Your task to perform on an android device: Find coffee shops on Maps Image 0: 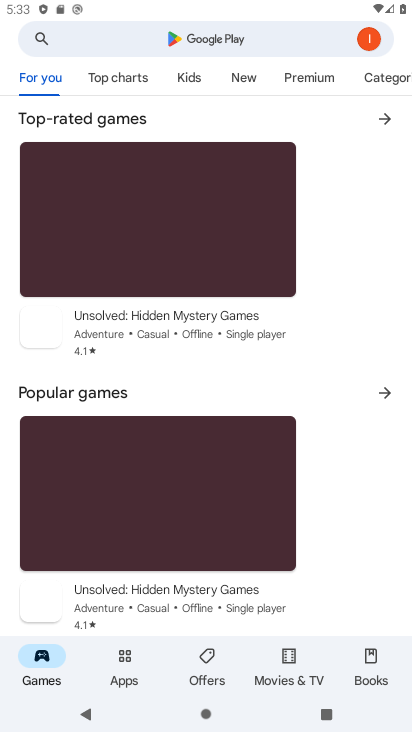
Step 0: press home button
Your task to perform on an android device: Find coffee shops on Maps Image 1: 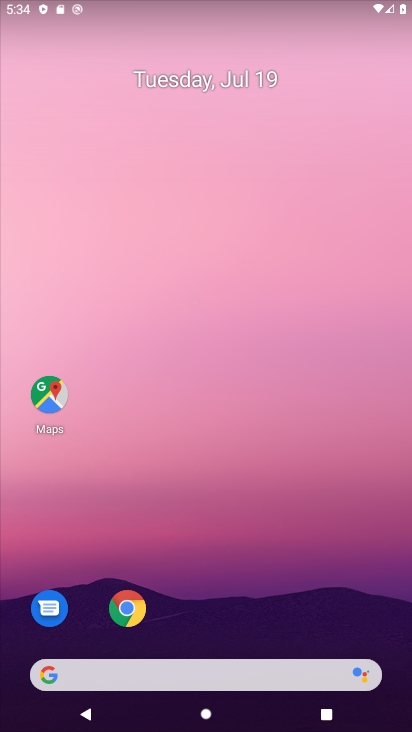
Step 1: drag from (257, 612) to (266, 13)
Your task to perform on an android device: Find coffee shops on Maps Image 2: 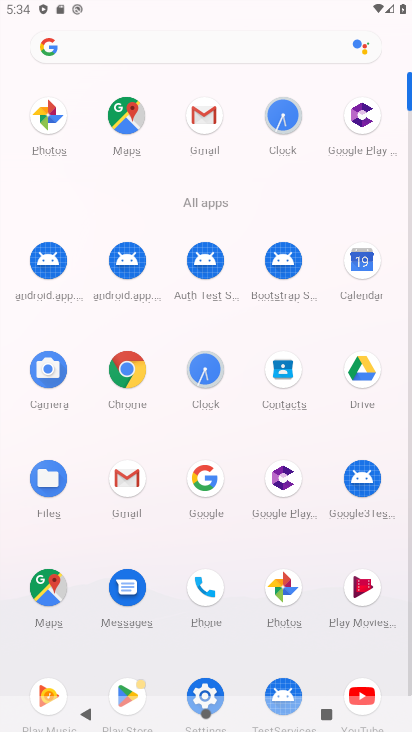
Step 2: click (62, 591)
Your task to perform on an android device: Find coffee shops on Maps Image 3: 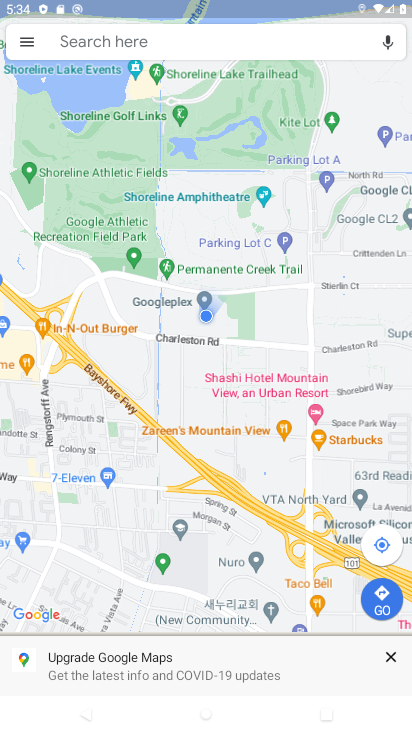
Step 3: click (108, 41)
Your task to perform on an android device: Find coffee shops on Maps Image 4: 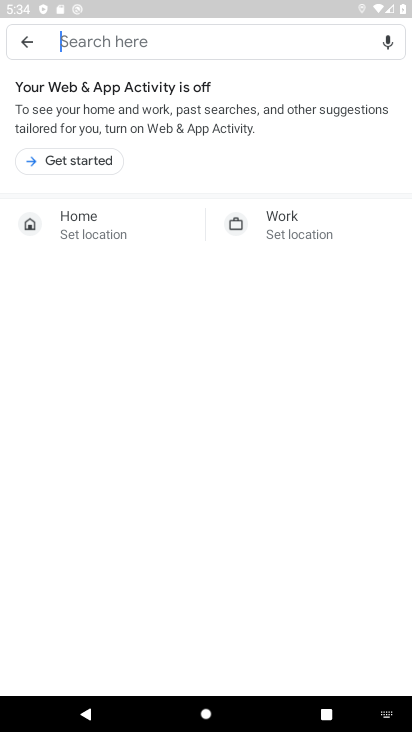
Step 4: type "coffee shops"
Your task to perform on an android device: Find coffee shops on Maps Image 5: 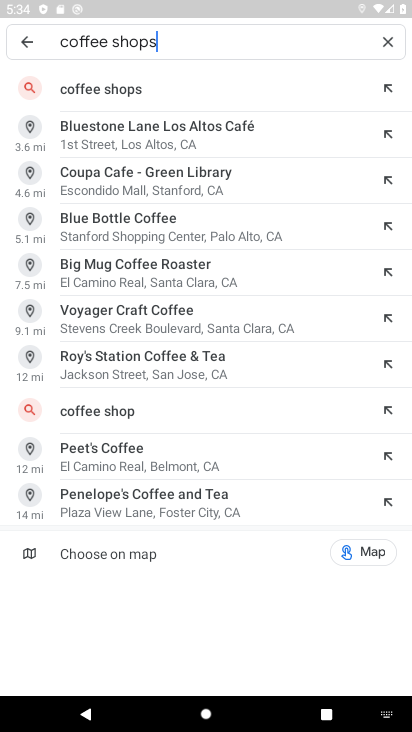
Step 5: click (117, 89)
Your task to perform on an android device: Find coffee shops on Maps Image 6: 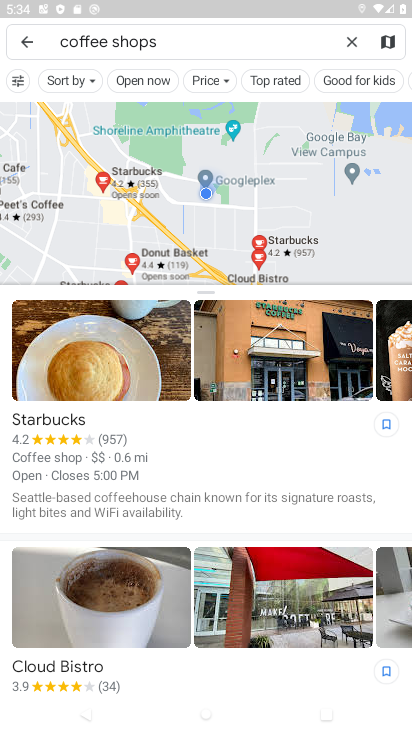
Step 6: task complete